Your task to perform on an android device: uninstall "PUBG MOBILE" Image 0: 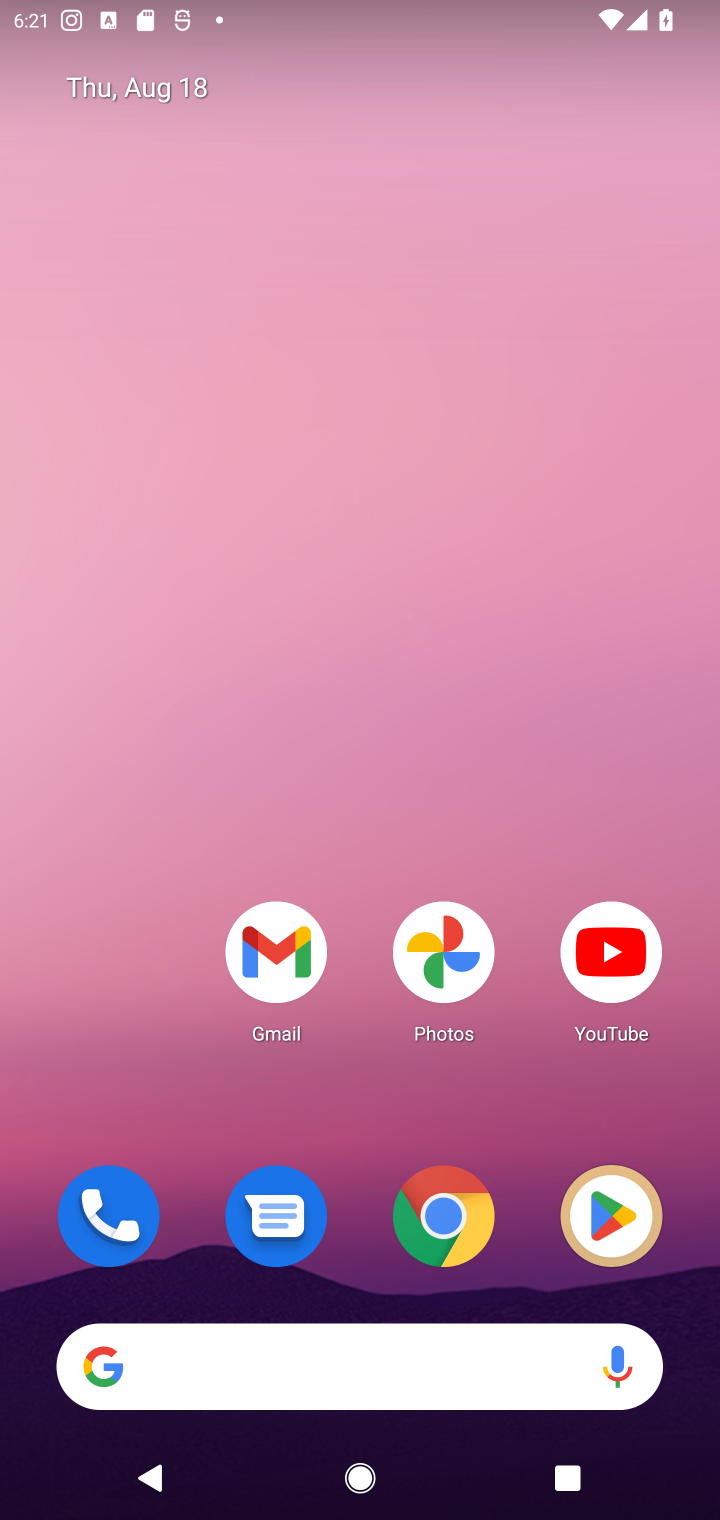
Step 0: click (606, 1229)
Your task to perform on an android device: uninstall "PUBG MOBILE" Image 1: 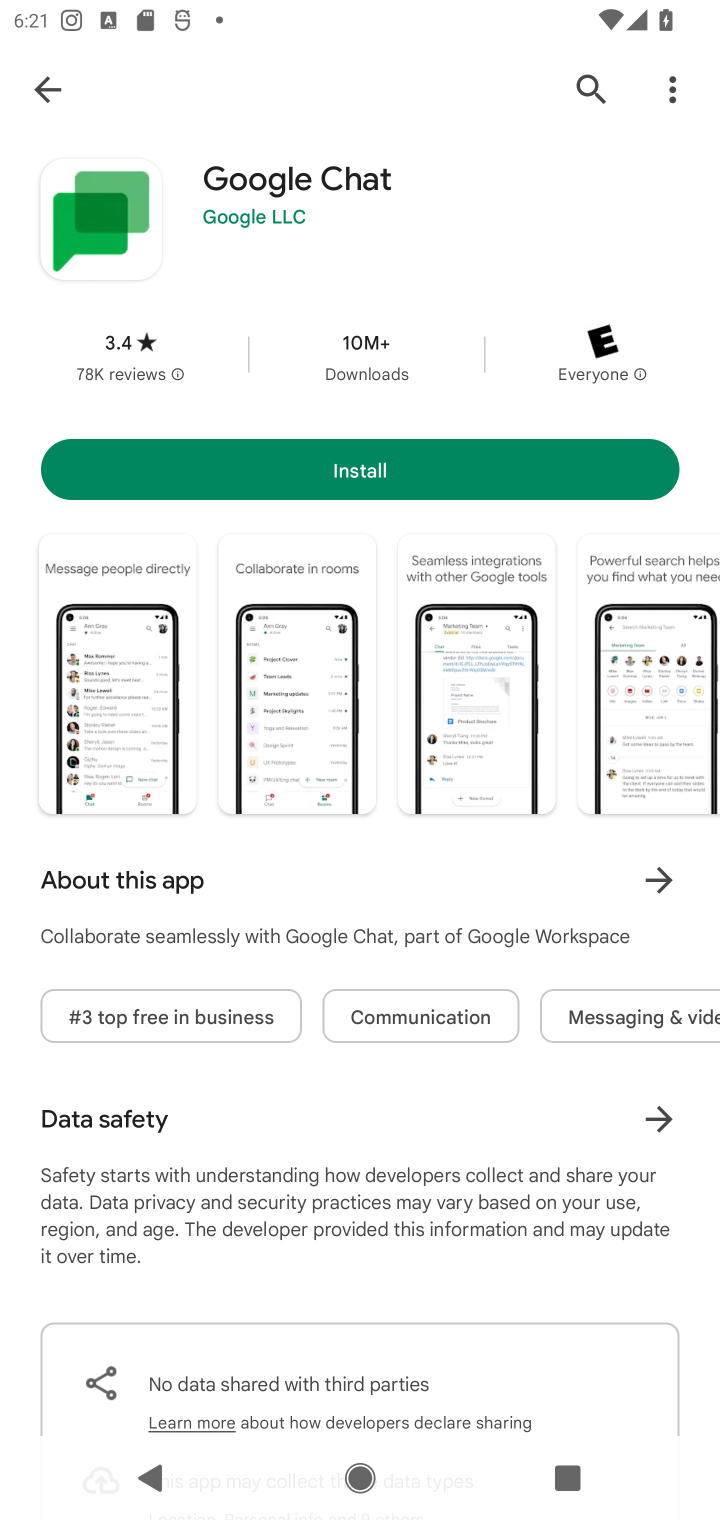
Step 1: click (606, 95)
Your task to perform on an android device: uninstall "PUBG MOBILE" Image 2: 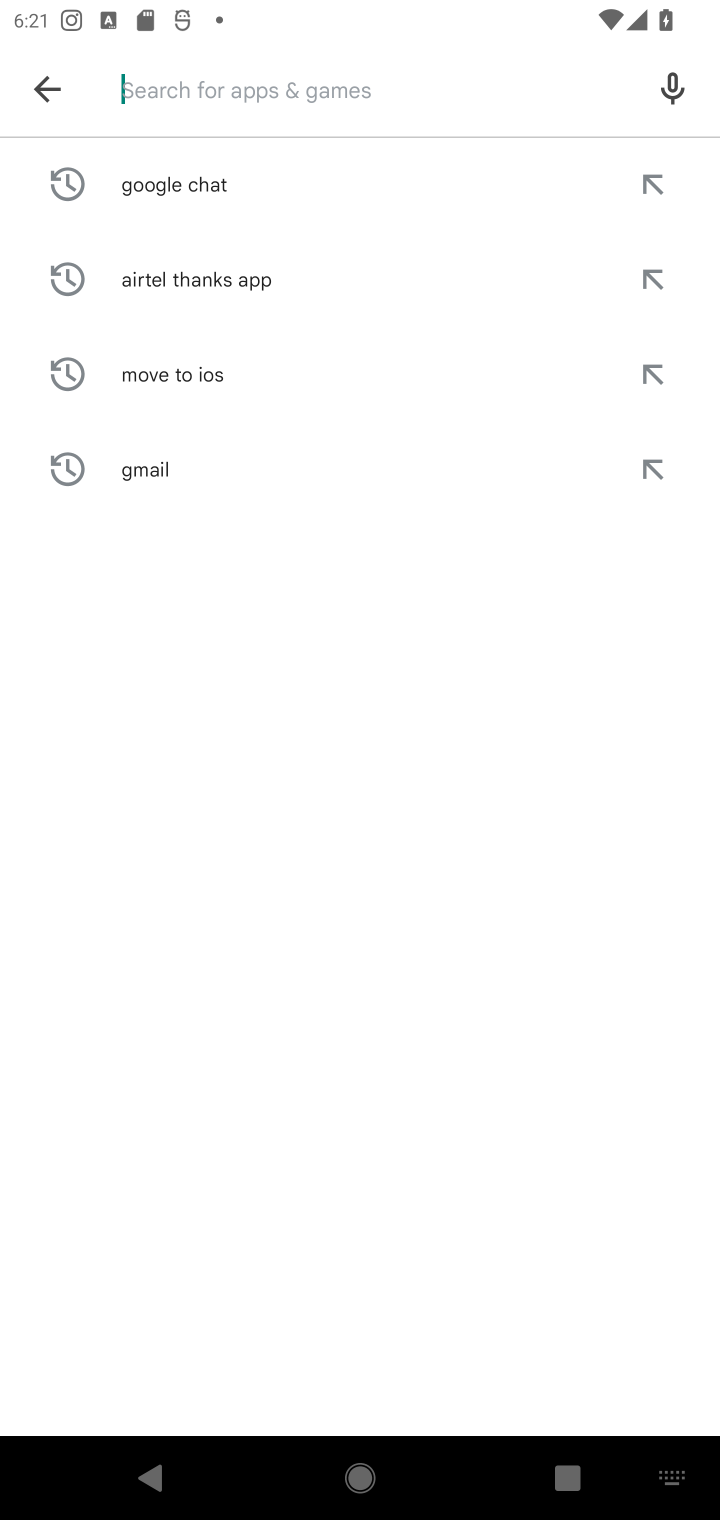
Step 2: type "PUBG MOBILE"
Your task to perform on an android device: uninstall "PUBG MOBILE" Image 3: 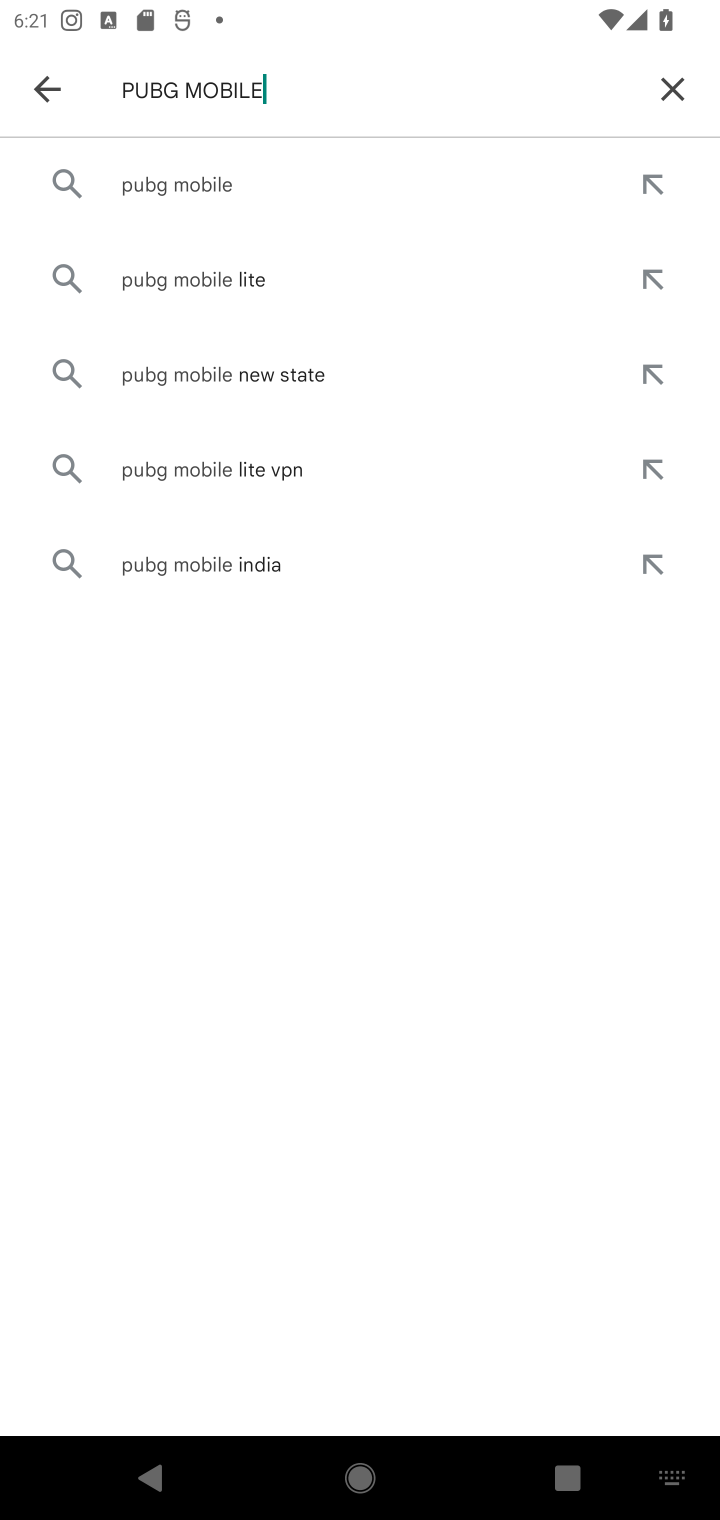
Step 3: click (188, 173)
Your task to perform on an android device: uninstall "PUBG MOBILE" Image 4: 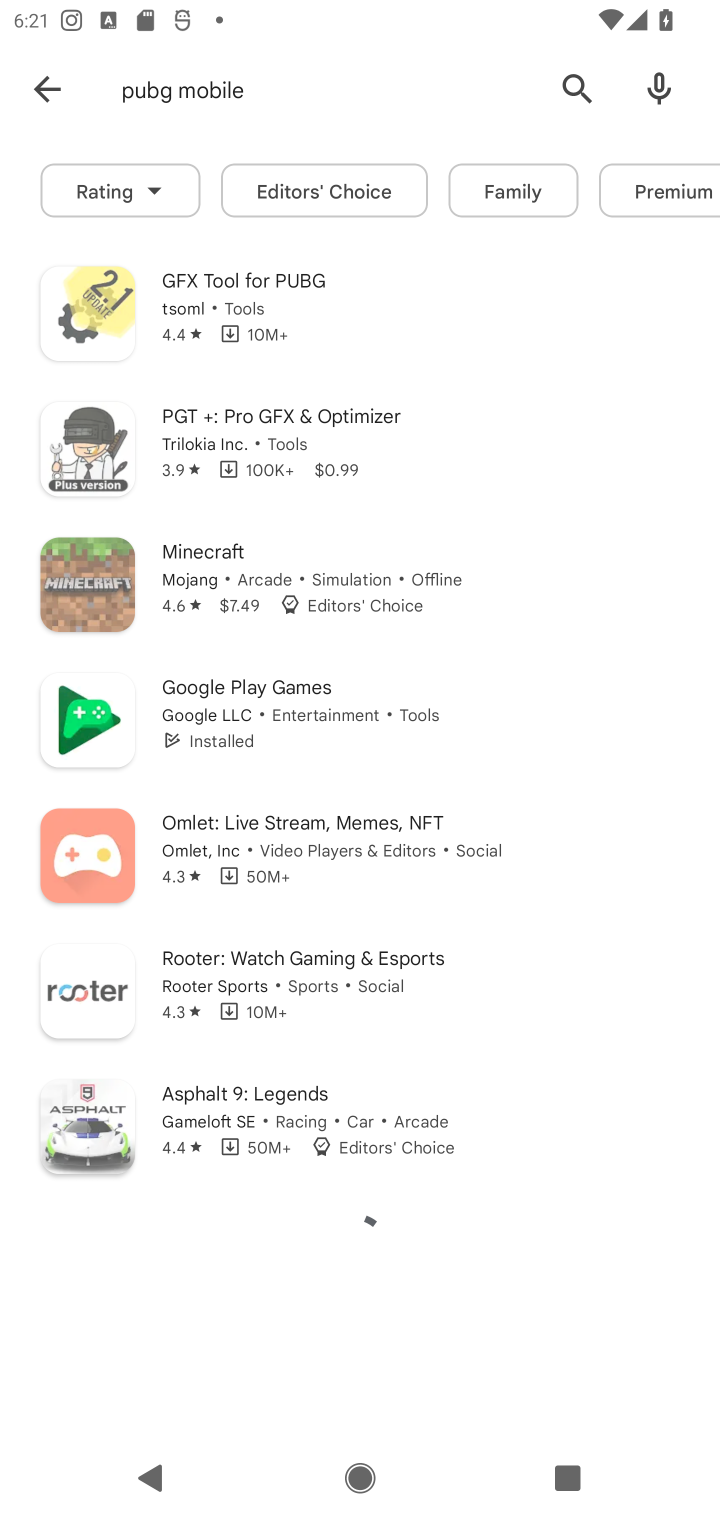
Step 4: task complete